Your task to perform on an android device: stop showing notifications on the lock screen Image 0: 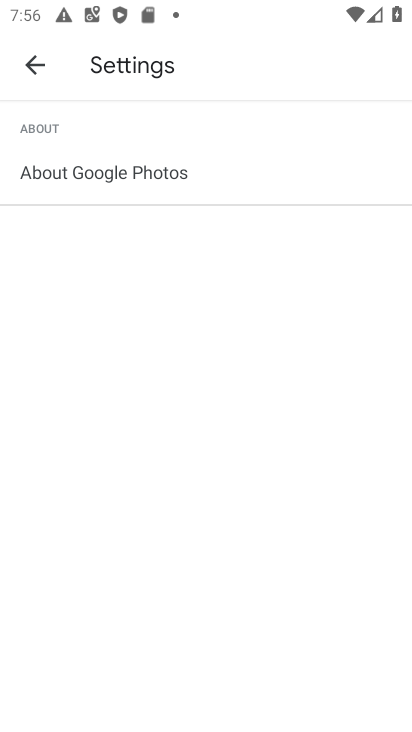
Step 0: press home button
Your task to perform on an android device: stop showing notifications on the lock screen Image 1: 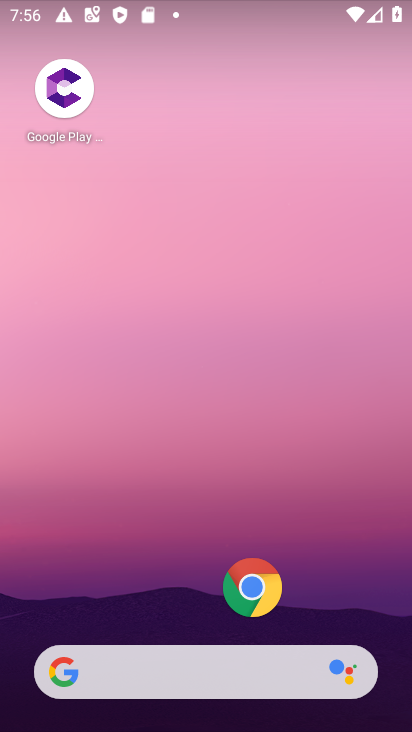
Step 1: drag from (113, 615) to (113, 293)
Your task to perform on an android device: stop showing notifications on the lock screen Image 2: 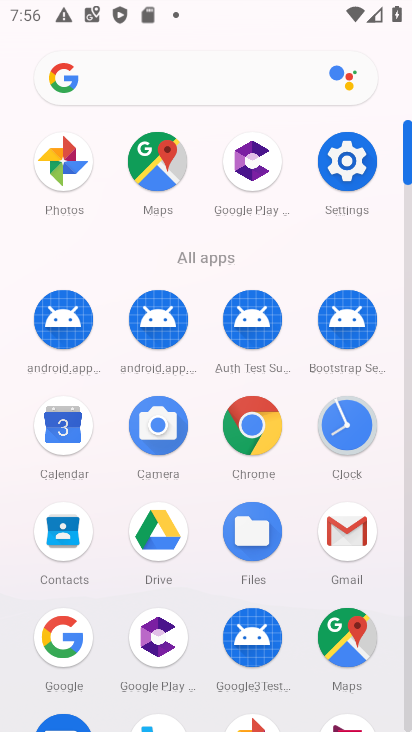
Step 2: click (352, 176)
Your task to perform on an android device: stop showing notifications on the lock screen Image 3: 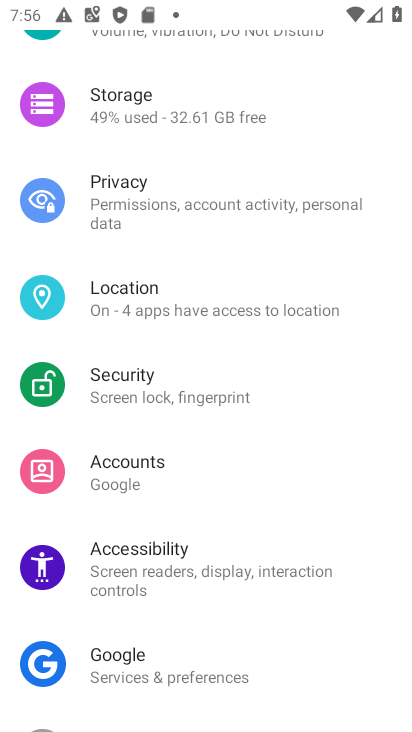
Step 3: drag from (296, 77) to (386, 630)
Your task to perform on an android device: stop showing notifications on the lock screen Image 4: 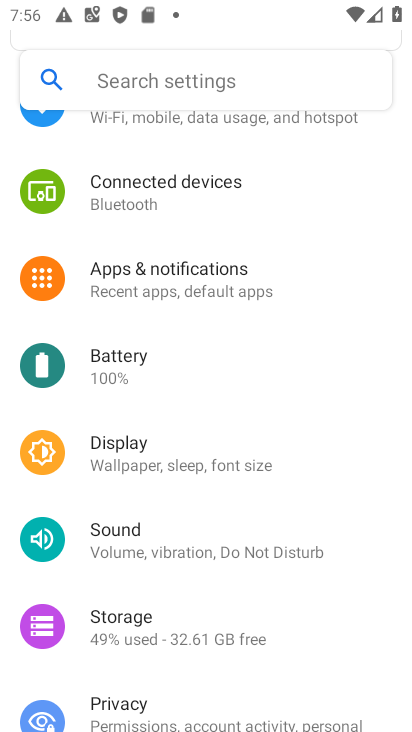
Step 4: click (273, 292)
Your task to perform on an android device: stop showing notifications on the lock screen Image 5: 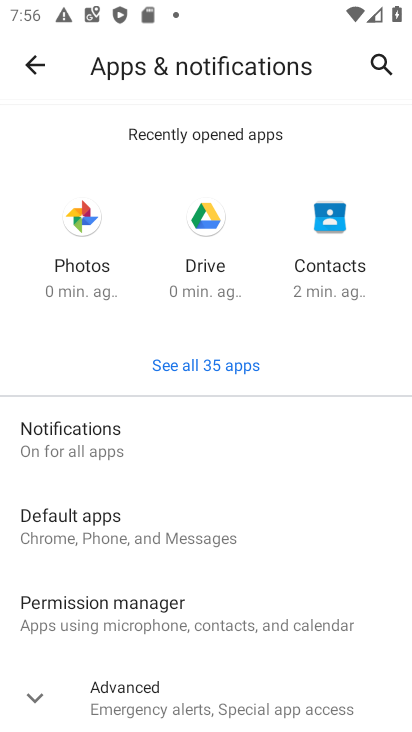
Step 5: click (177, 425)
Your task to perform on an android device: stop showing notifications on the lock screen Image 6: 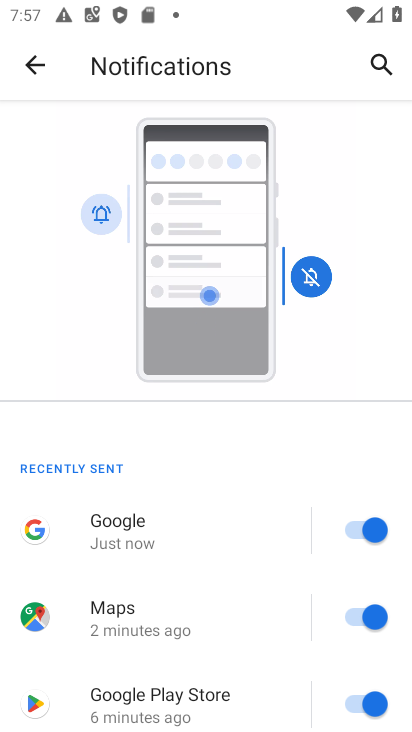
Step 6: drag from (112, 600) to (64, 91)
Your task to perform on an android device: stop showing notifications on the lock screen Image 7: 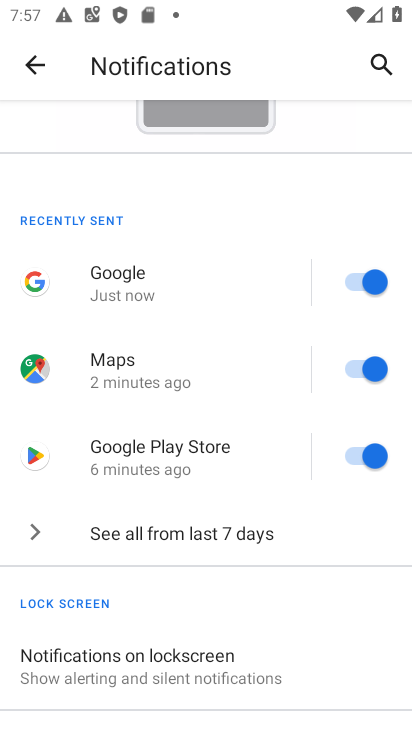
Step 7: click (105, 652)
Your task to perform on an android device: stop showing notifications on the lock screen Image 8: 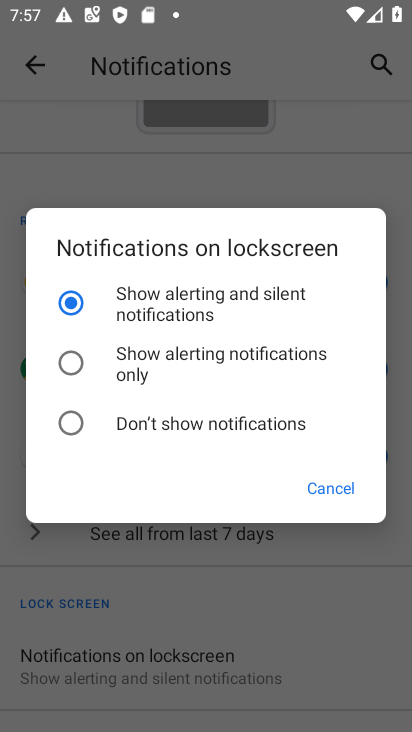
Step 8: click (220, 411)
Your task to perform on an android device: stop showing notifications on the lock screen Image 9: 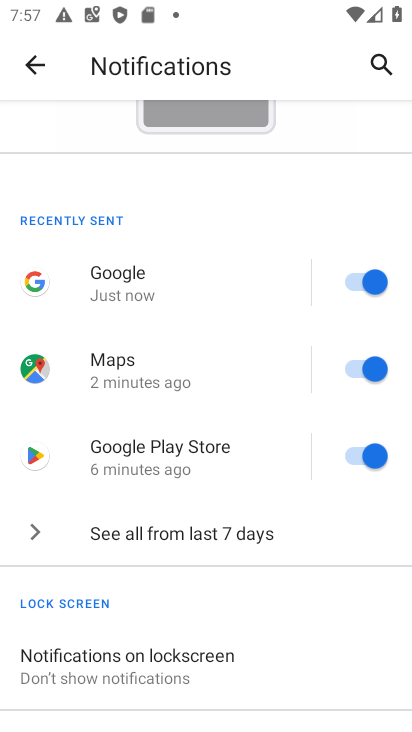
Step 9: task complete